Your task to perform on an android device: turn off priority inbox in the gmail app Image 0: 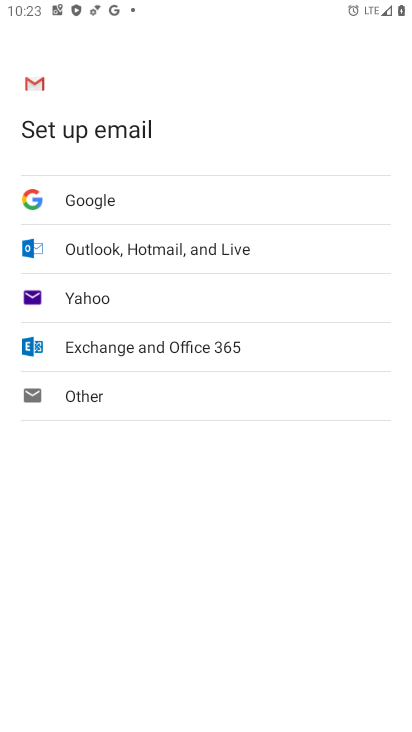
Step 0: press home button
Your task to perform on an android device: turn off priority inbox in the gmail app Image 1: 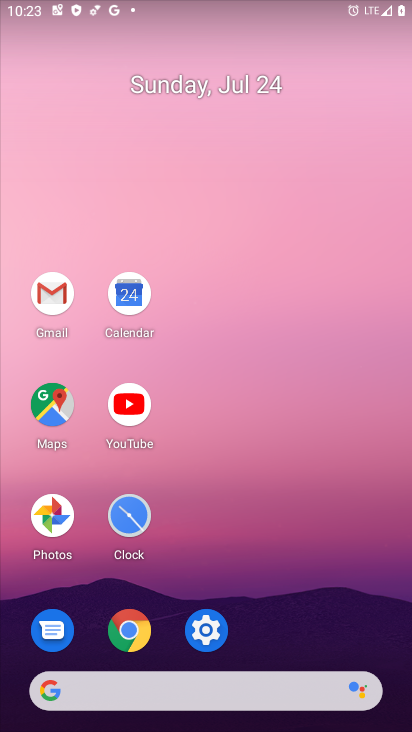
Step 1: click (46, 292)
Your task to perform on an android device: turn off priority inbox in the gmail app Image 2: 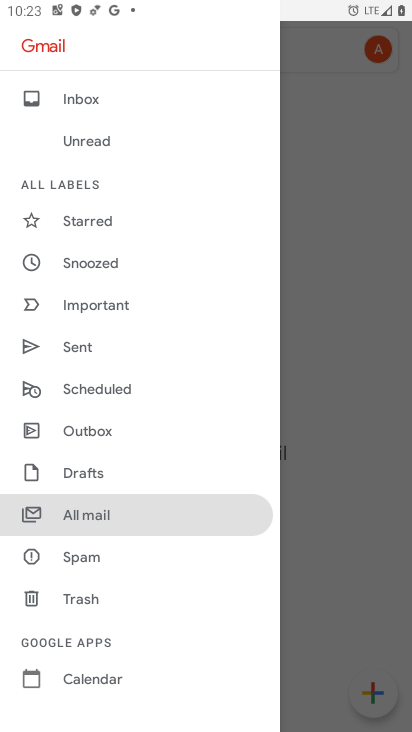
Step 2: drag from (149, 627) to (179, 215)
Your task to perform on an android device: turn off priority inbox in the gmail app Image 3: 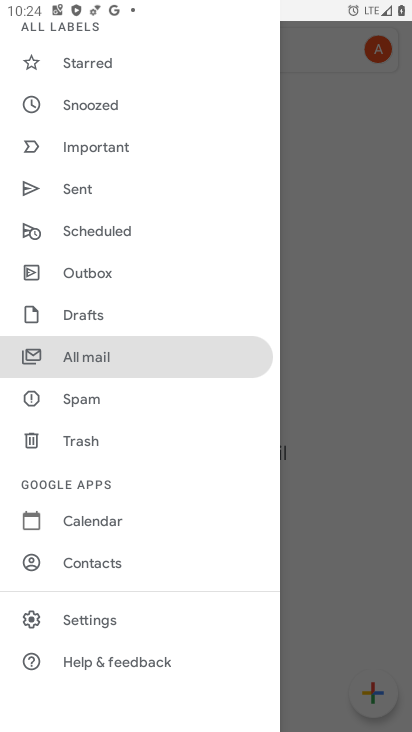
Step 3: click (93, 616)
Your task to perform on an android device: turn off priority inbox in the gmail app Image 4: 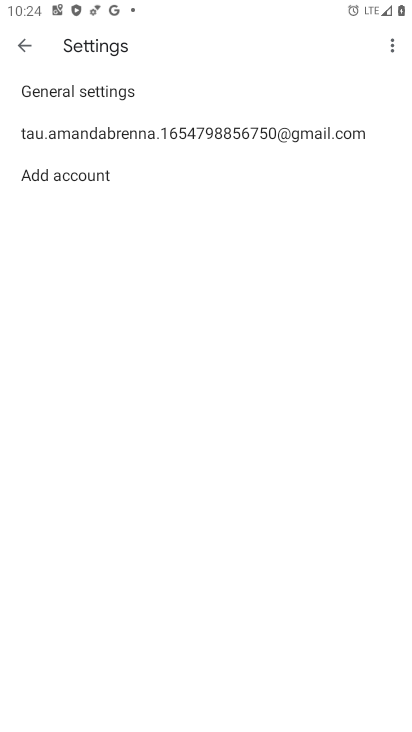
Step 4: click (89, 132)
Your task to perform on an android device: turn off priority inbox in the gmail app Image 5: 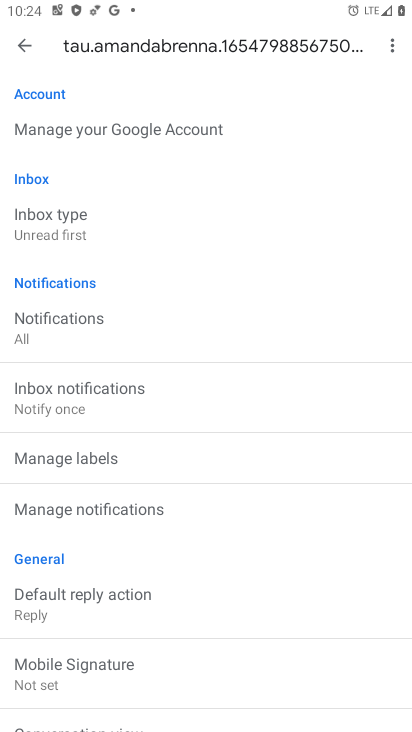
Step 5: click (41, 233)
Your task to perform on an android device: turn off priority inbox in the gmail app Image 6: 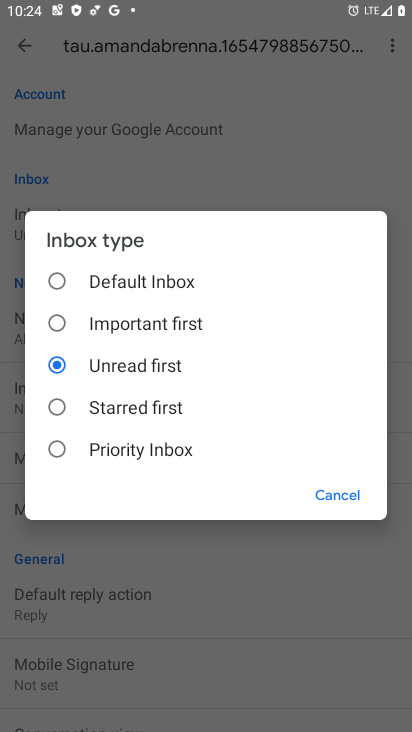
Step 6: task complete